Your task to perform on an android device: toggle improve location accuracy Image 0: 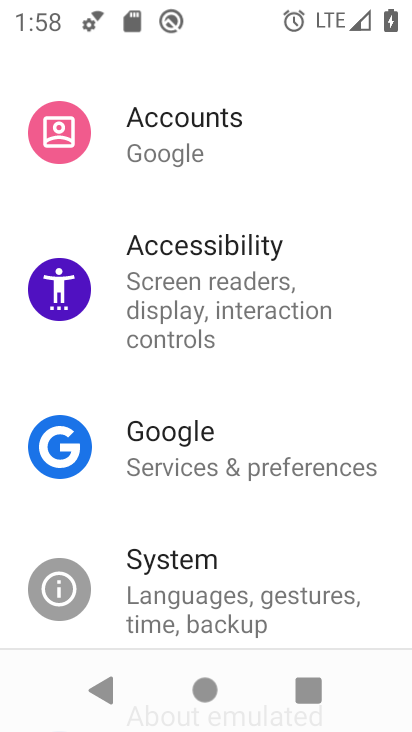
Step 0: press home button
Your task to perform on an android device: toggle improve location accuracy Image 1: 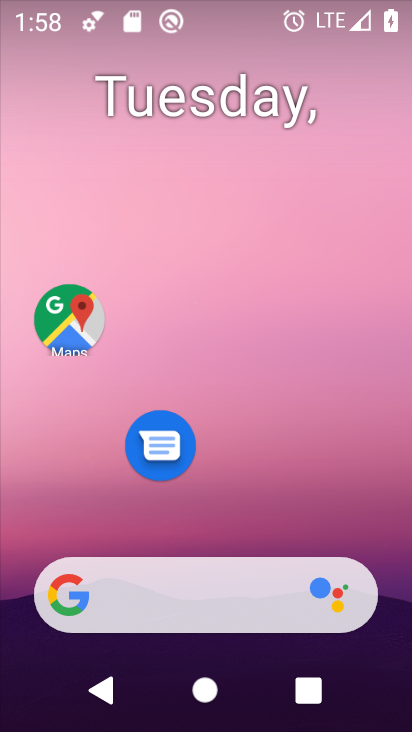
Step 1: drag from (295, 507) to (210, 104)
Your task to perform on an android device: toggle improve location accuracy Image 2: 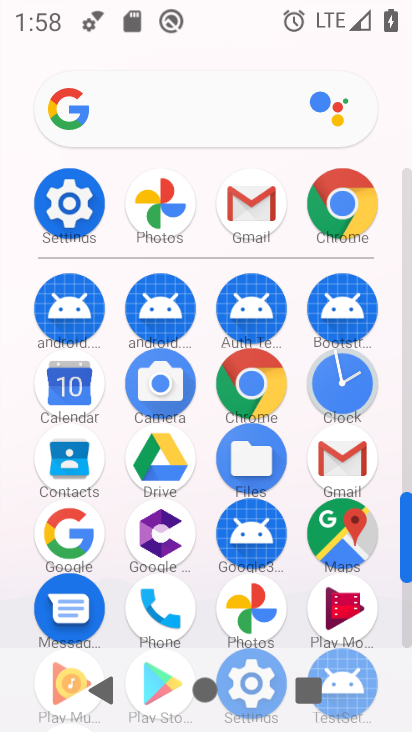
Step 2: click (69, 201)
Your task to perform on an android device: toggle improve location accuracy Image 3: 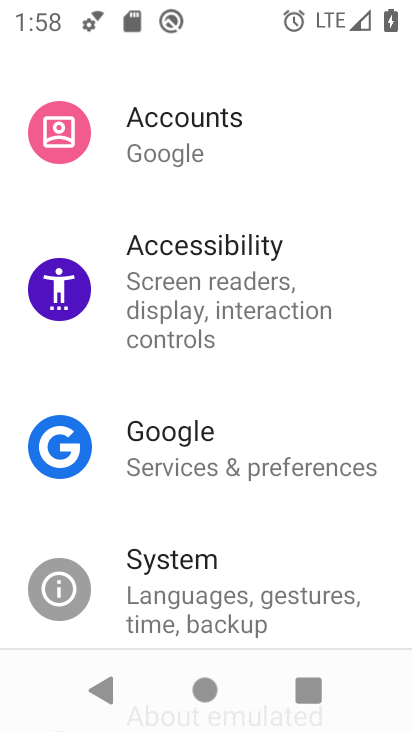
Step 3: drag from (264, 210) to (252, 476)
Your task to perform on an android device: toggle improve location accuracy Image 4: 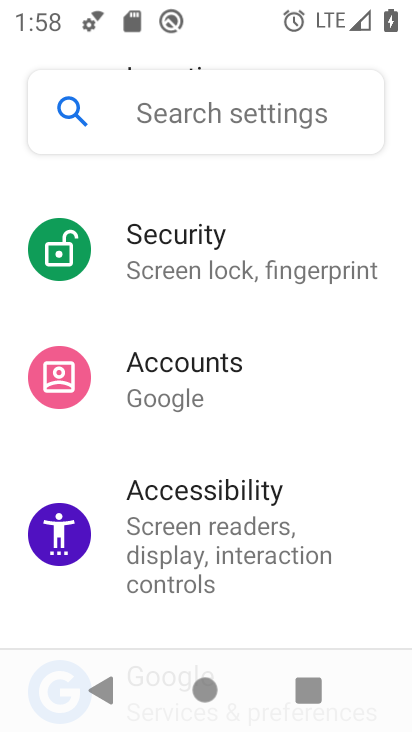
Step 4: drag from (247, 361) to (253, 551)
Your task to perform on an android device: toggle improve location accuracy Image 5: 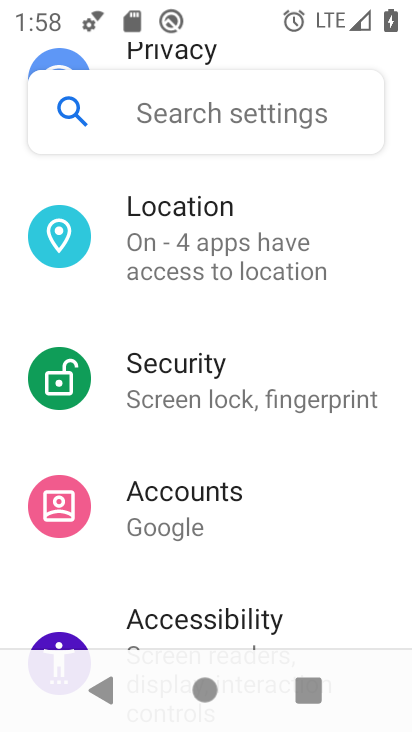
Step 5: click (197, 215)
Your task to perform on an android device: toggle improve location accuracy Image 6: 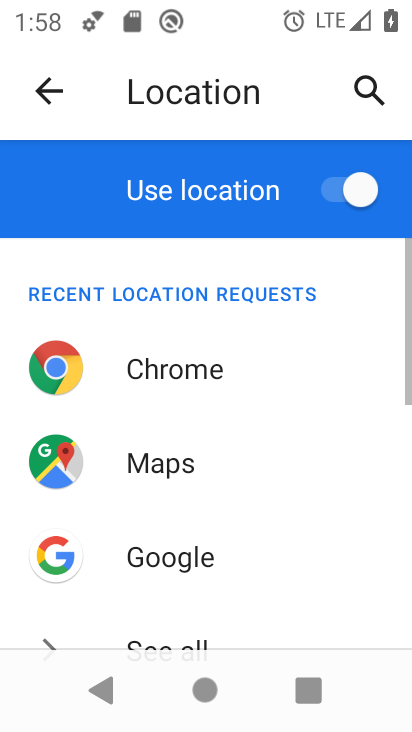
Step 6: drag from (255, 513) to (238, 288)
Your task to perform on an android device: toggle improve location accuracy Image 7: 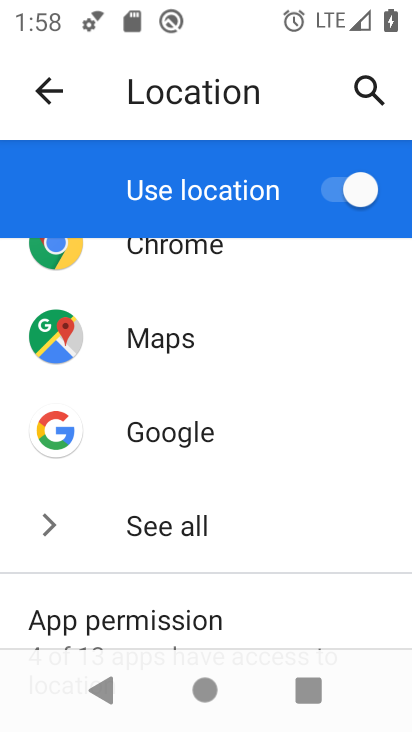
Step 7: drag from (242, 470) to (227, 258)
Your task to perform on an android device: toggle improve location accuracy Image 8: 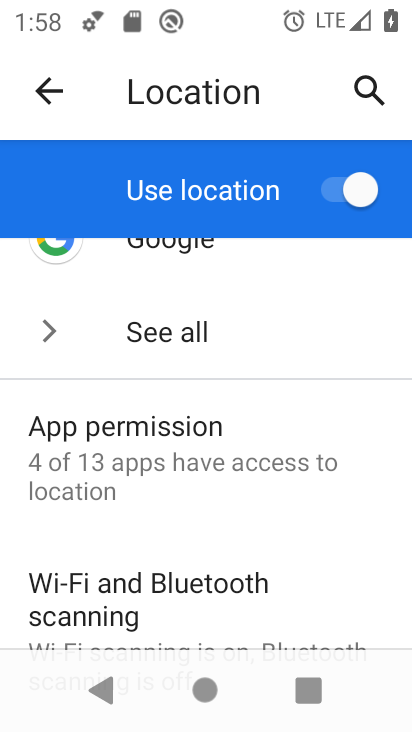
Step 8: drag from (169, 513) to (146, 307)
Your task to perform on an android device: toggle improve location accuracy Image 9: 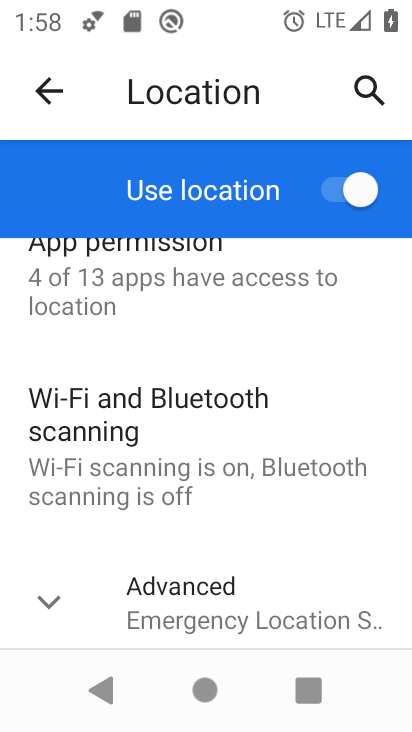
Step 9: drag from (163, 540) to (137, 334)
Your task to perform on an android device: toggle improve location accuracy Image 10: 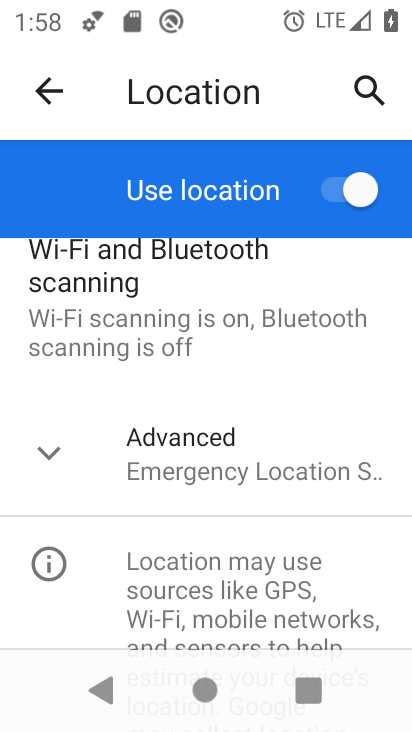
Step 10: click (50, 457)
Your task to perform on an android device: toggle improve location accuracy Image 11: 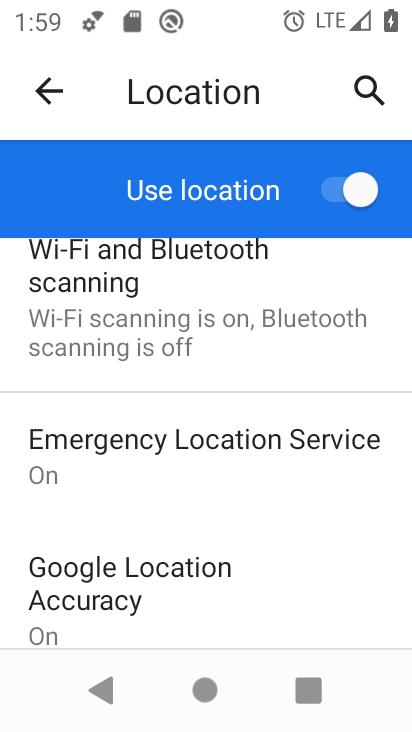
Step 11: drag from (210, 488) to (166, 311)
Your task to perform on an android device: toggle improve location accuracy Image 12: 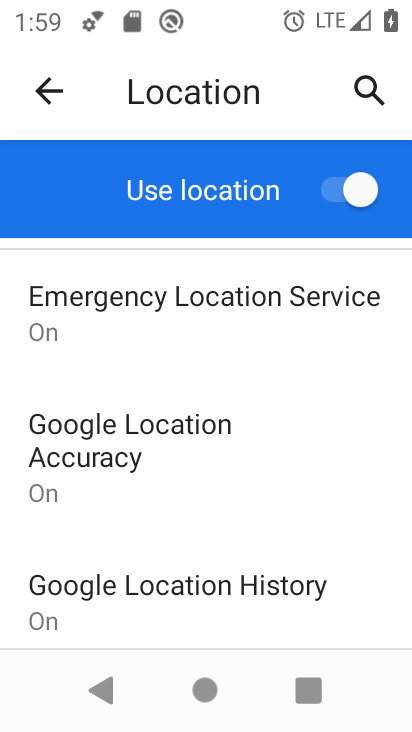
Step 12: click (104, 436)
Your task to perform on an android device: toggle improve location accuracy Image 13: 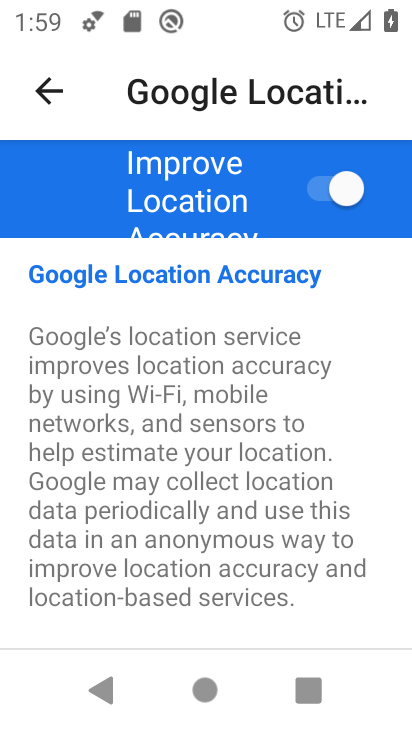
Step 13: drag from (201, 517) to (150, 252)
Your task to perform on an android device: toggle improve location accuracy Image 14: 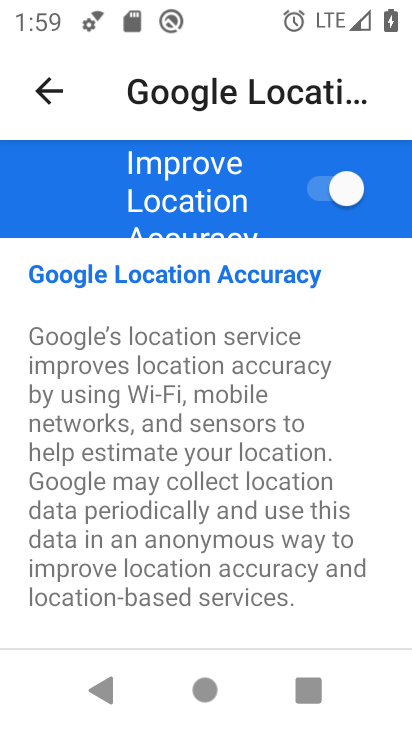
Step 14: click (347, 187)
Your task to perform on an android device: toggle improve location accuracy Image 15: 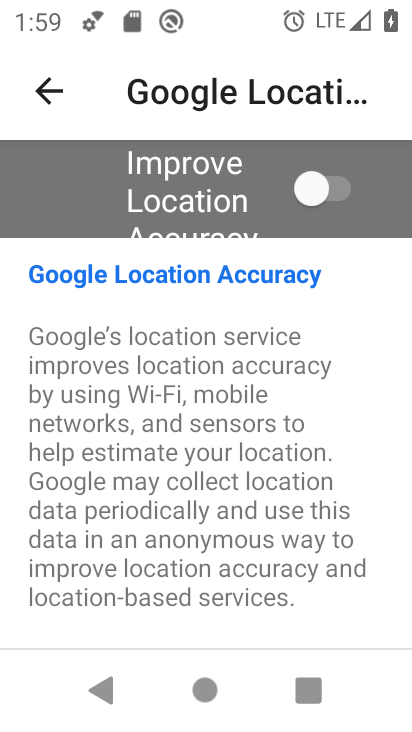
Step 15: task complete